Your task to perform on an android device: Open calendar and show me the first week of next month Image 0: 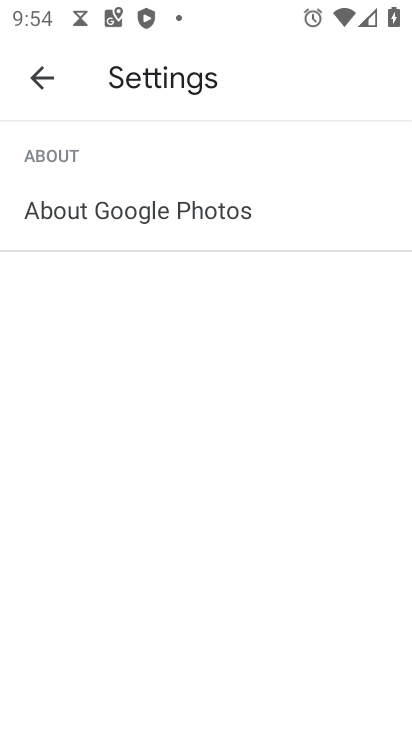
Step 0: click (45, 73)
Your task to perform on an android device: Open calendar and show me the first week of next month Image 1: 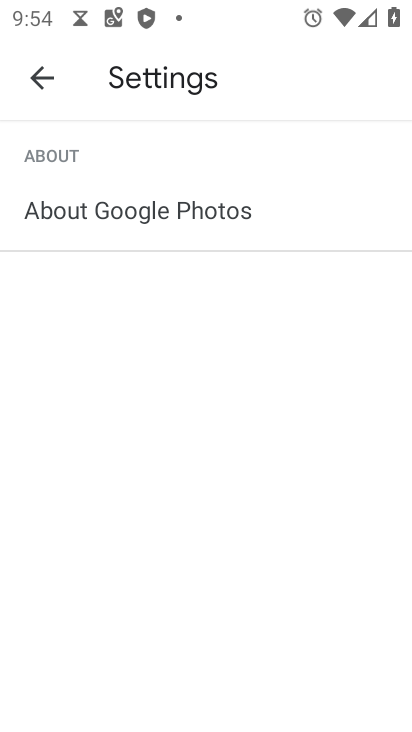
Step 1: click (45, 73)
Your task to perform on an android device: Open calendar and show me the first week of next month Image 2: 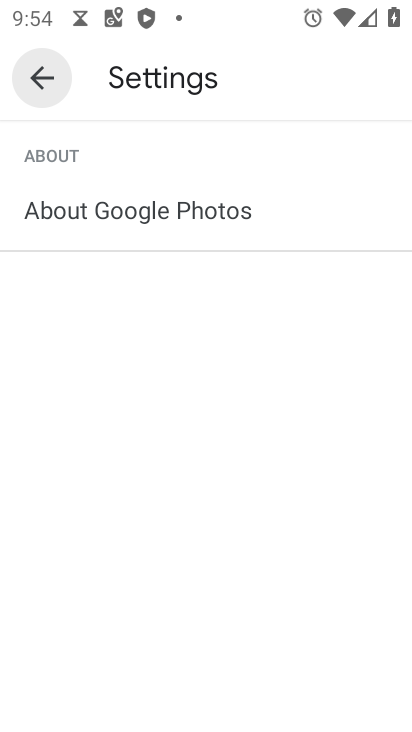
Step 2: click (47, 75)
Your task to perform on an android device: Open calendar and show me the first week of next month Image 3: 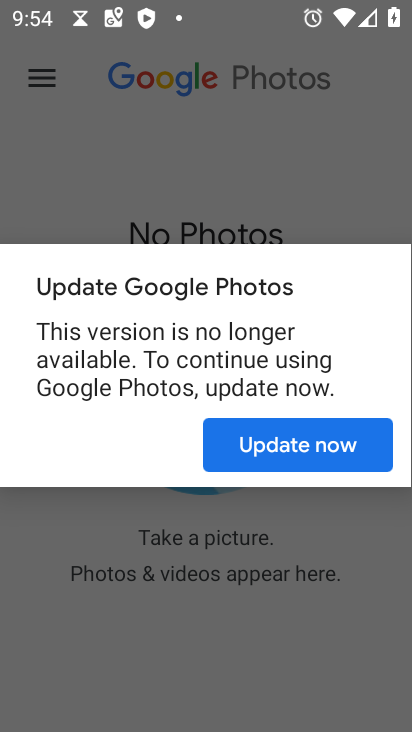
Step 3: click (310, 155)
Your task to perform on an android device: Open calendar and show me the first week of next month Image 4: 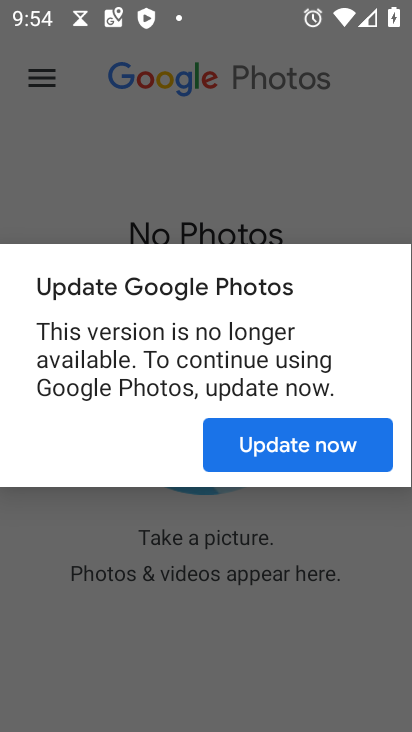
Step 4: click (310, 155)
Your task to perform on an android device: Open calendar and show me the first week of next month Image 5: 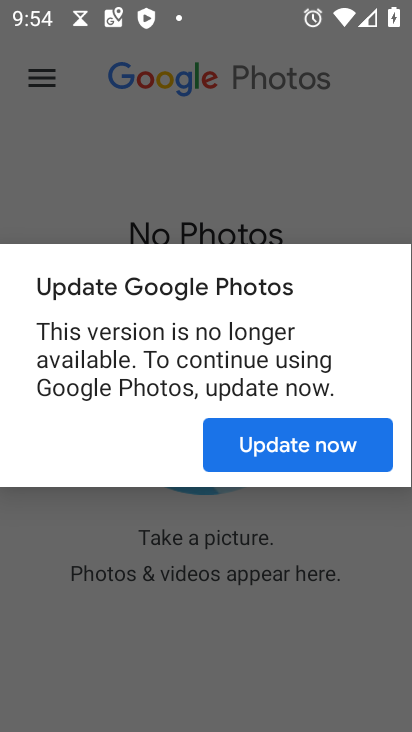
Step 5: click (310, 155)
Your task to perform on an android device: Open calendar and show me the first week of next month Image 6: 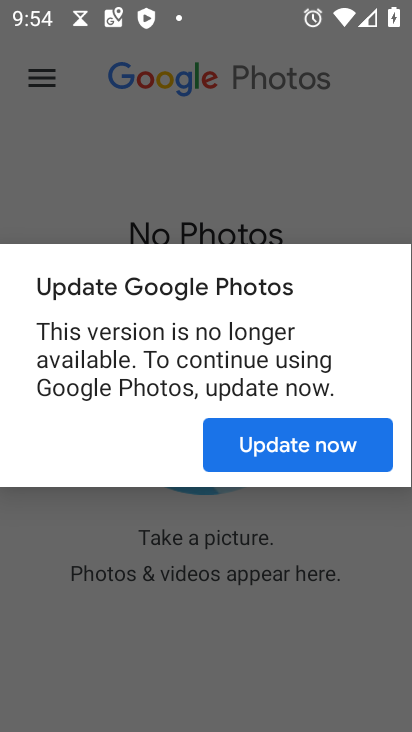
Step 6: click (314, 156)
Your task to perform on an android device: Open calendar and show me the first week of next month Image 7: 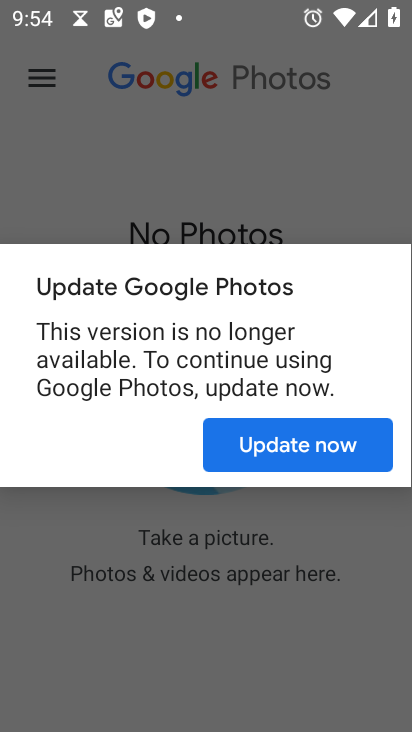
Step 7: click (315, 157)
Your task to perform on an android device: Open calendar and show me the first week of next month Image 8: 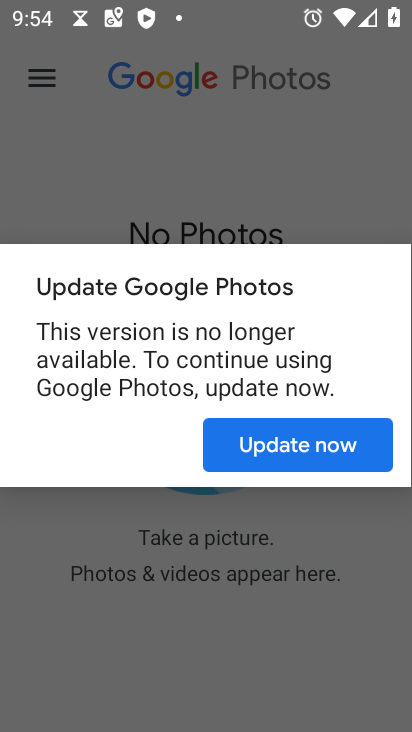
Step 8: click (318, 157)
Your task to perform on an android device: Open calendar and show me the first week of next month Image 9: 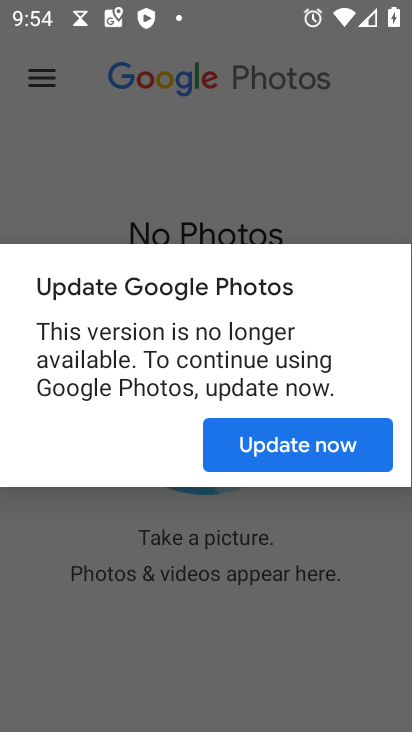
Step 9: click (319, 157)
Your task to perform on an android device: Open calendar and show me the first week of next month Image 10: 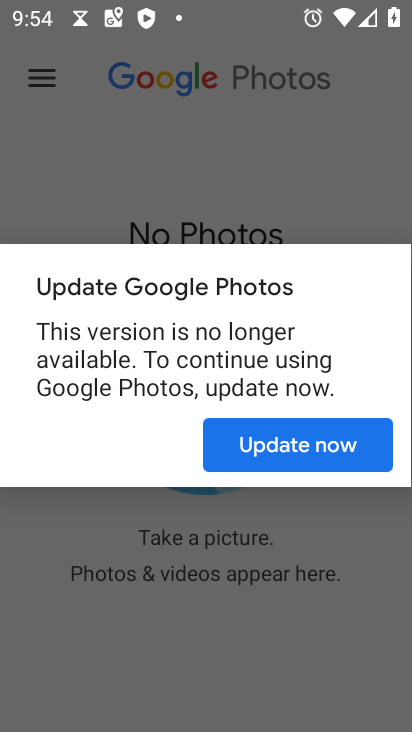
Step 10: click (319, 157)
Your task to perform on an android device: Open calendar and show me the first week of next month Image 11: 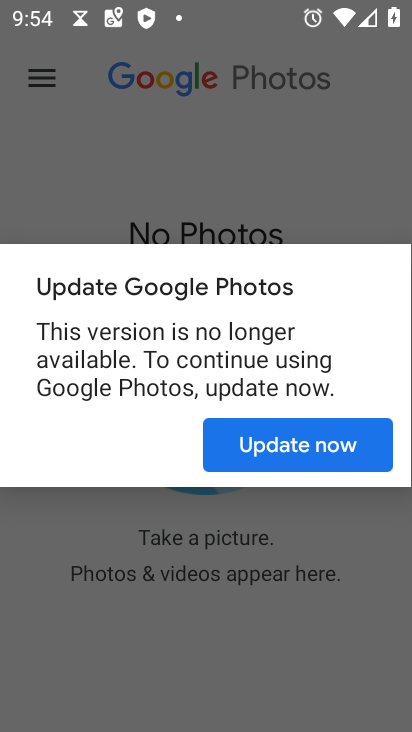
Step 11: press back button
Your task to perform on an android device: Open calendar and show me the first week of next month Image 12: 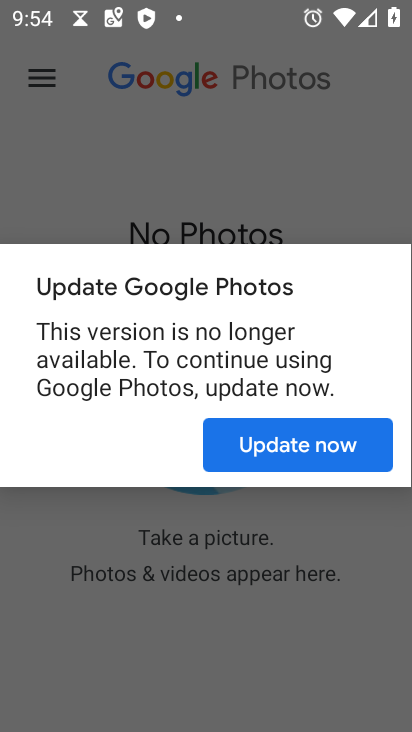
Step 12: press back button
Your task to perform on an android device: Open calendar and show me the first week of next month Image 13: 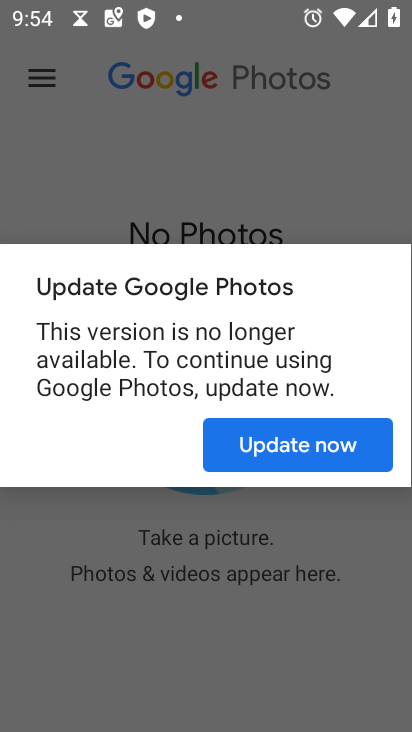
Step 13: press back button
Your task to perform on an android device: Open calendar and show me the first week of next month Image 14: 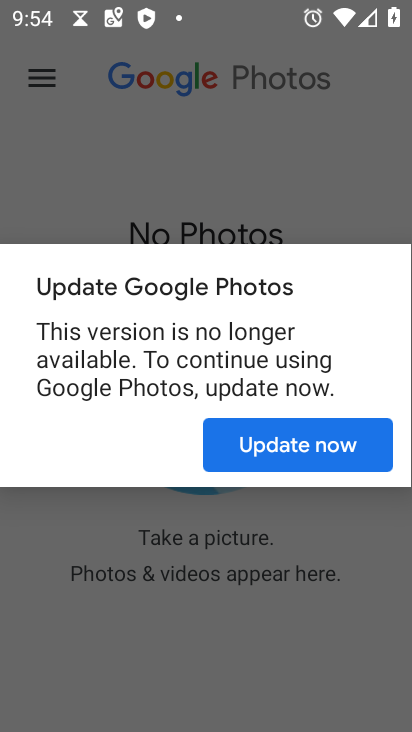
Step 14: press back button
Your task to perform on an android device: Open calendar and show me the first week of next month Image 15: 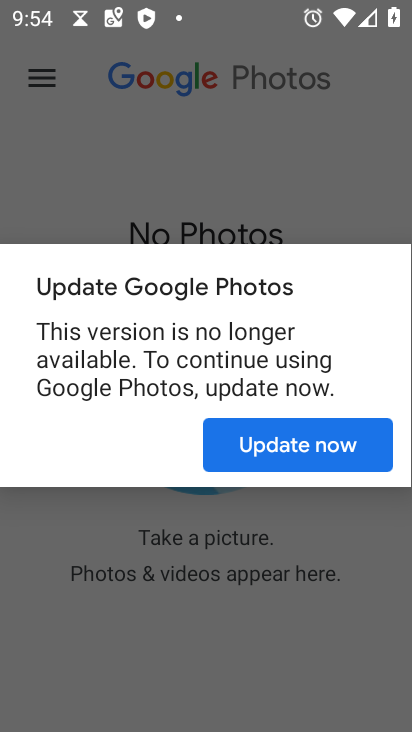
Step 15: press back button
Your task to perform on an android device: Open calendar and show me the first week of next month Image 16: 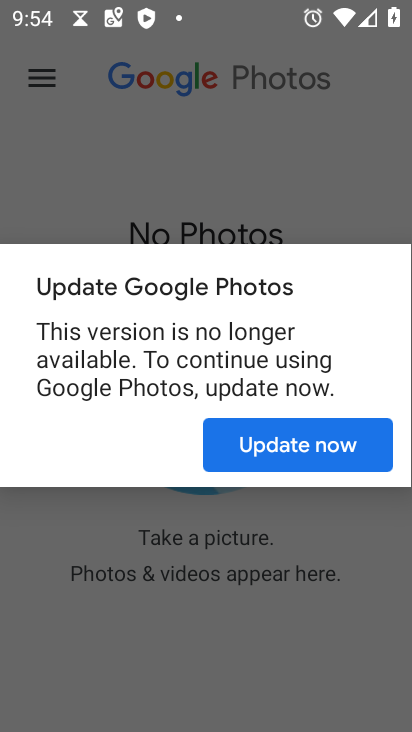
Step 16: press back button
Your task to perform on an android device: Open calendar and show me the first week of next month Image 17: 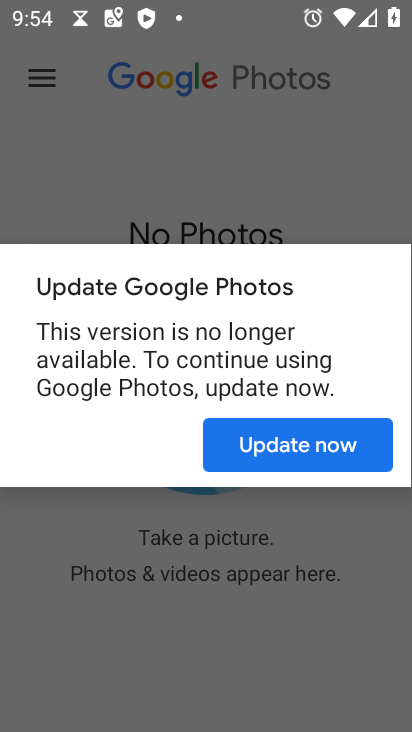
Step 17: press back button
Your task to perform on an android device: Open calendar and show me the first week of next month Image 18: 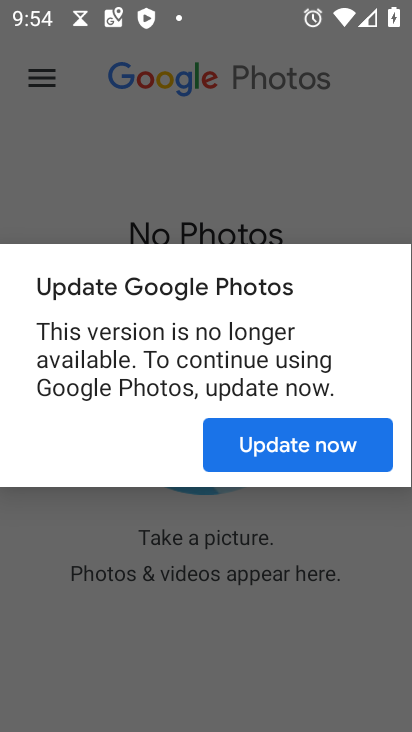
Step 18: press home button
Your task to perform on an android device: Open calendar and show me the first week of next month Image 19: 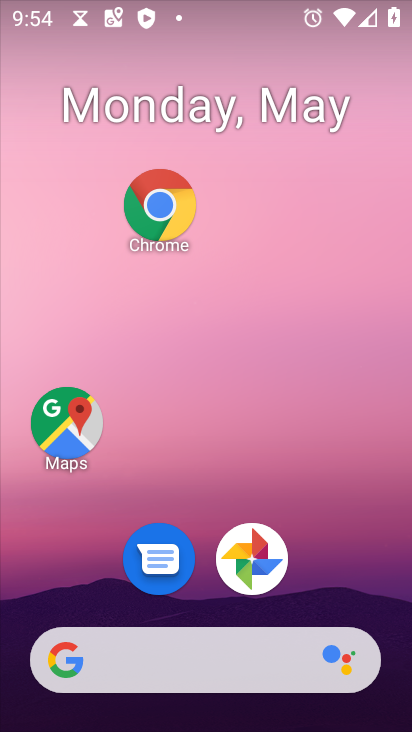
Step 19: drag from (247, 666) to (178, 11)
Your task to perform on an android device: Open calendar and show me the first week of next month Image 20: 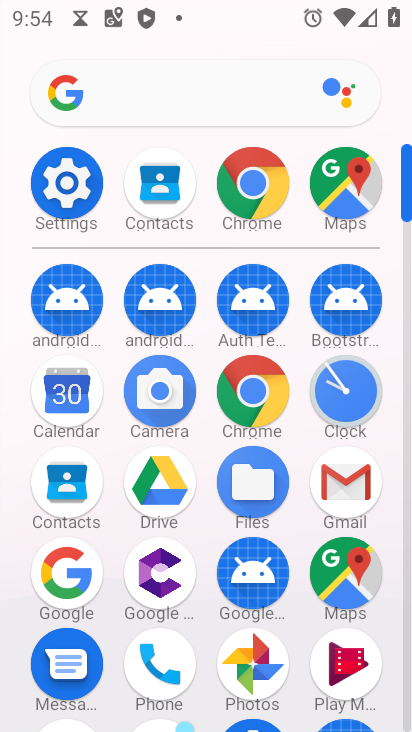
Step 20: click (72, 392)
Your task to perform on an android device: Open calendar and show me the first week of next month Image 21: 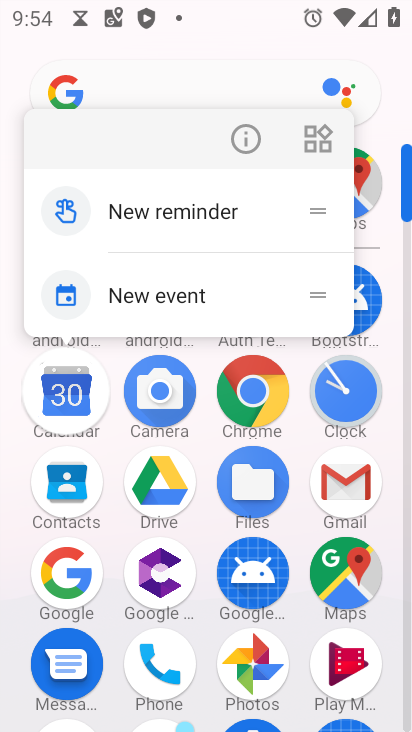
Step 21: click (62, 400)
Your task to perform on an android device: Open calendar and show me the first week of next month Image 22: 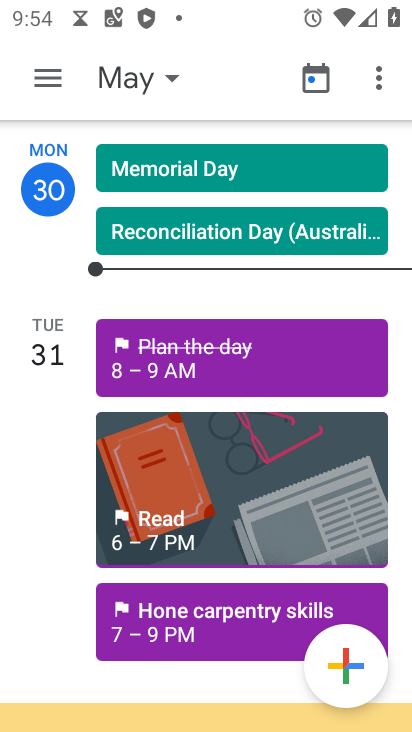
Step 22: click (61, 399)
Your task to perform on an android device: Open calendar and show me the first week of next month Image 23: 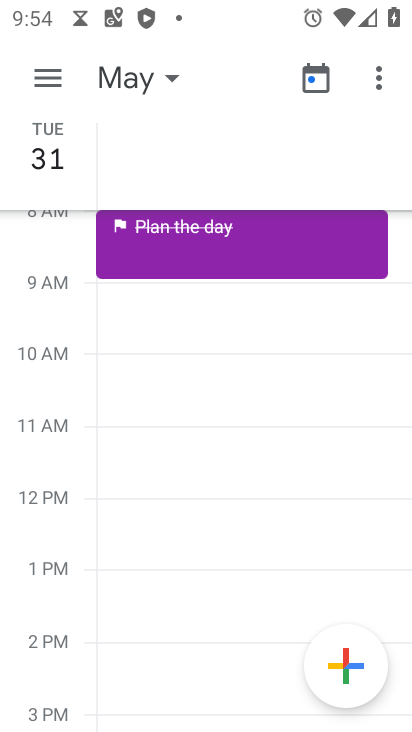
Step 23: click (167, 82)
Your task to perform on an android device: Open calendar and show me the first week of next month Image 24: 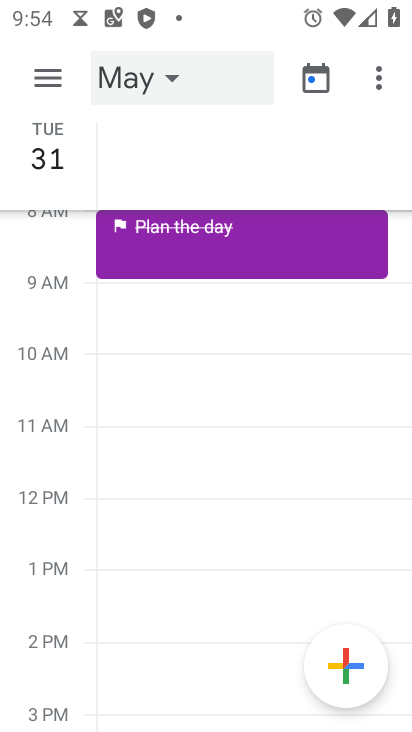
Step 24: click (167, 82)
Your task to perform on an android device: Open calendar and show me the first week of next month Image 25: 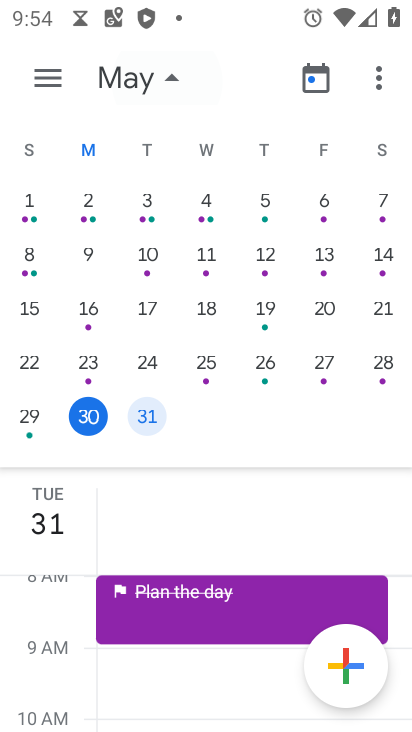
Step 25: click (167, 82)
Your task to perform on an android device: Open calendar and show me the first week of next month Image 26: 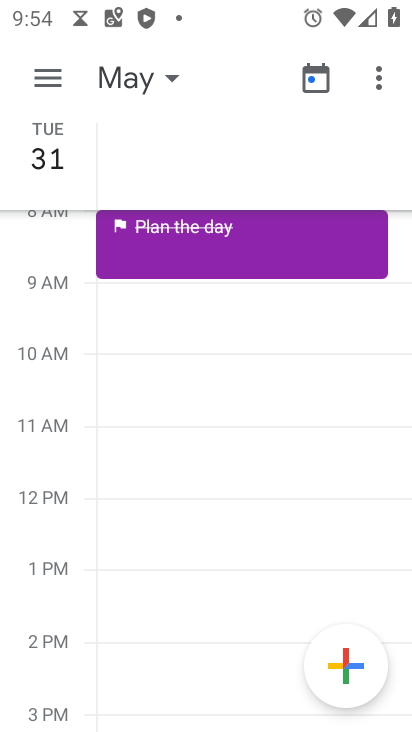
Step 26: click (174, 88)
Your task to perform on an android device: Open calendar and show me the first week of next month Image 27: 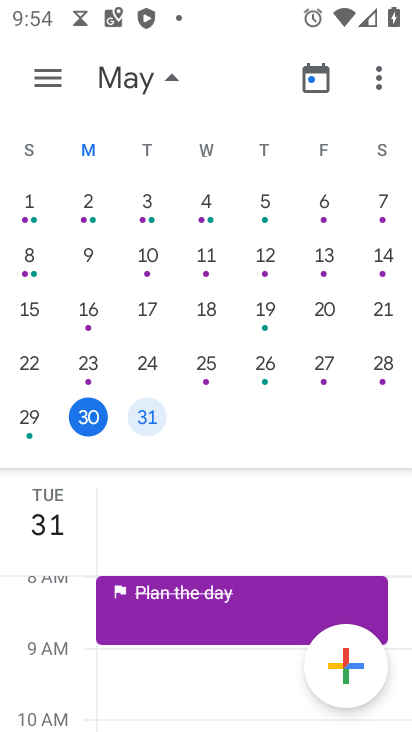
Step 27: task complete